Your task to perform on an android device: Open Chrome and go to settings Image 0: 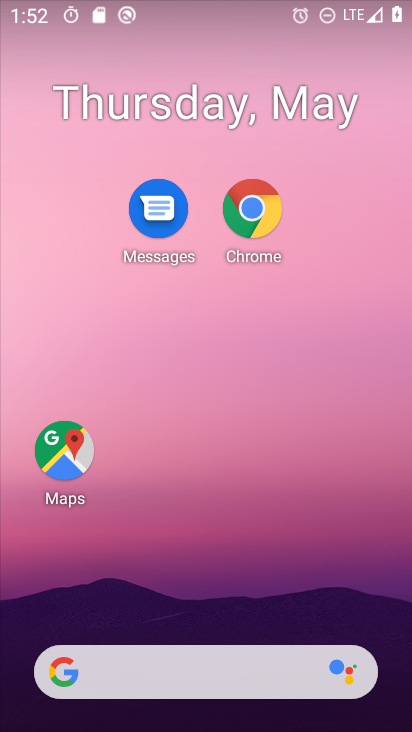
Step 0: click (248, 218)
Your task to perform on an android device: Open Chrome and go to settings Image 1: 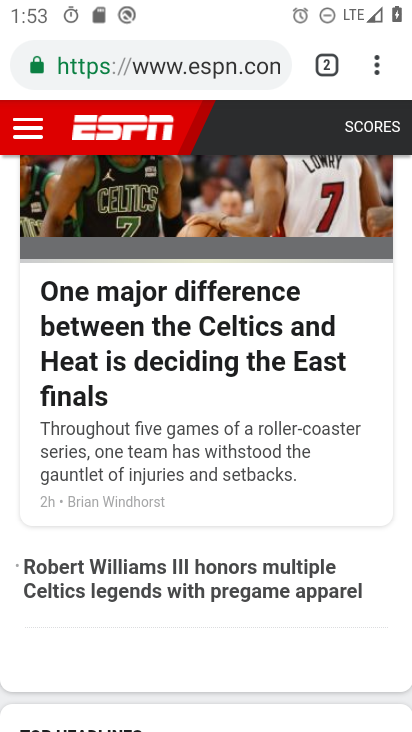
Step 1: click (378, 75)
Your task to perform on an android device: Open Chrome and go to settings Image 2: 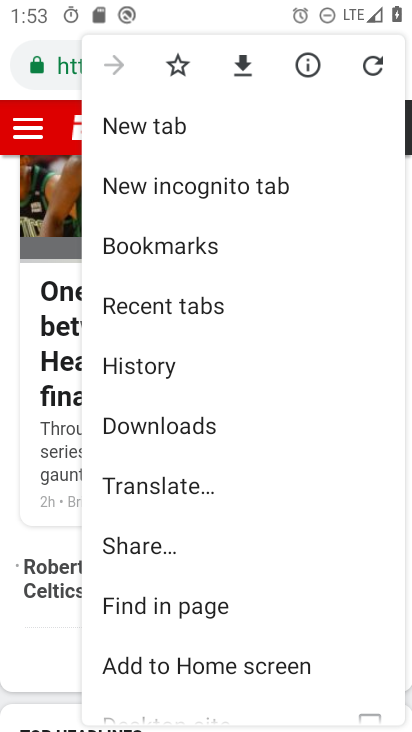
Step 2: drag from (218, 645) to (228, 351)
Your task to perform on an android device: Open Chrome and go to settings Image 3: 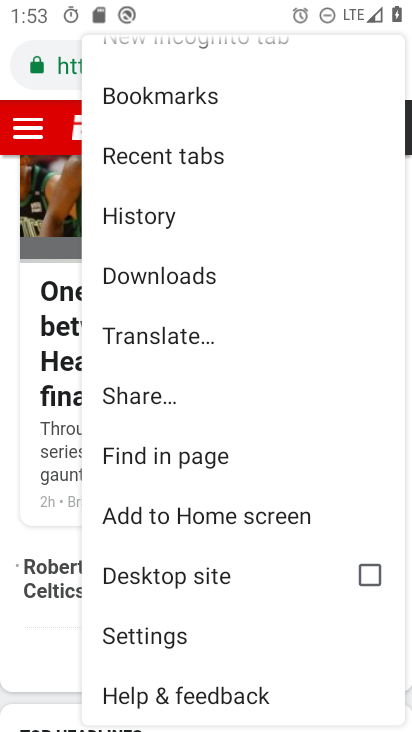
Step 3: click (163, 636)
Your task to perform on an android device: Open Chrome and go to settings Image 4: 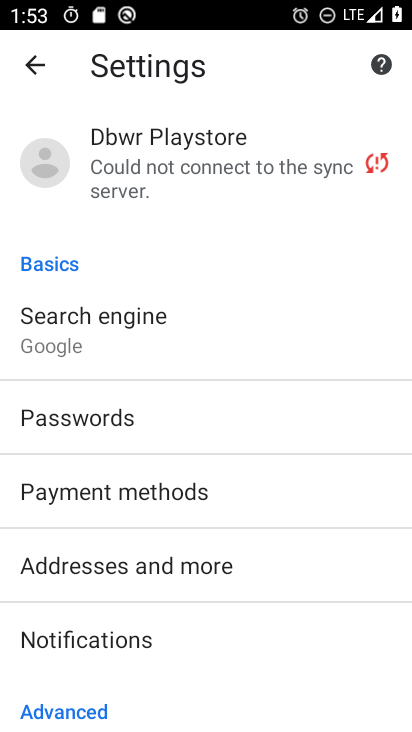
Step 4: task complete